Your task to perform on an android device: turn on location history Image 0: 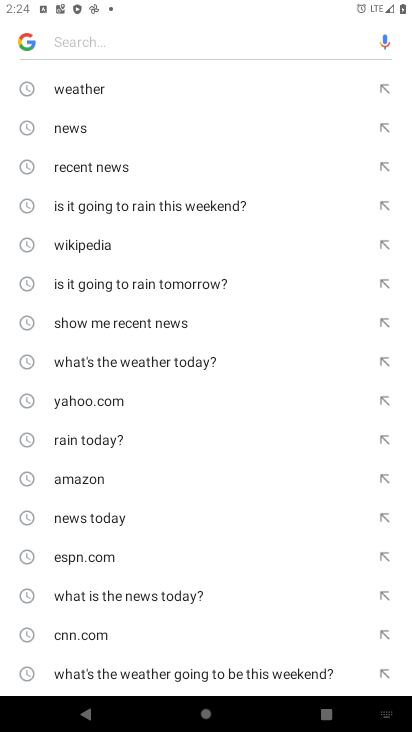
Step 0: press home button
Your task to perform on an android device: turn on location history Image 1: 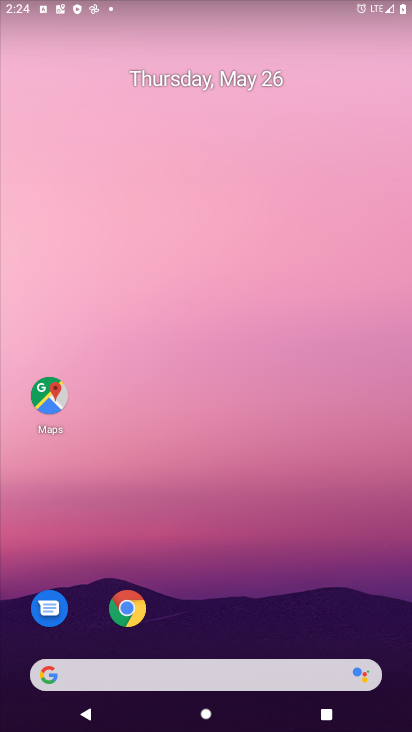
Step 1: click (52, 399)
Your task to perform on an android device: turn on location history Image 2: 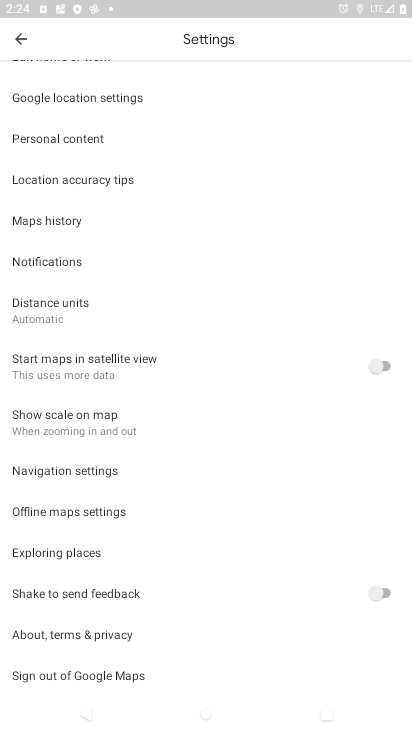
Step 2: click (53, 143)
Your task to perform on an android device: turn on location history Image 3: 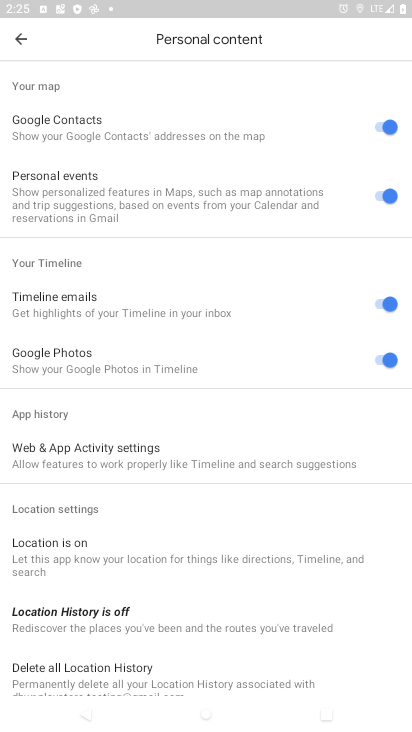
Step 3: click (91, 611)
Your task to perform on an android device: turn on location history Image 4: 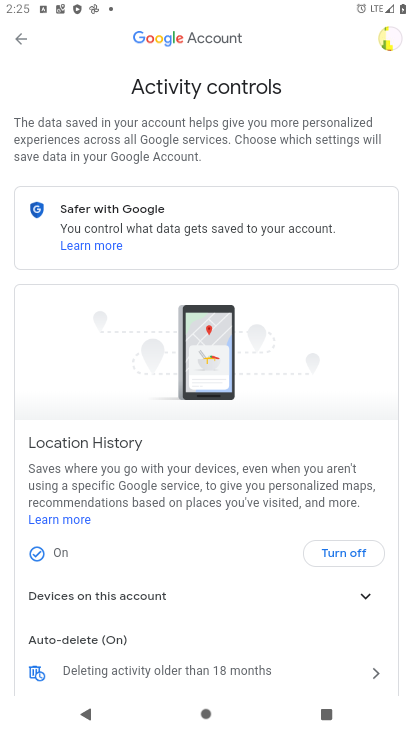
Step 4: task complete